Your task to perform on an android device: Toggle the flashlight Image 0: 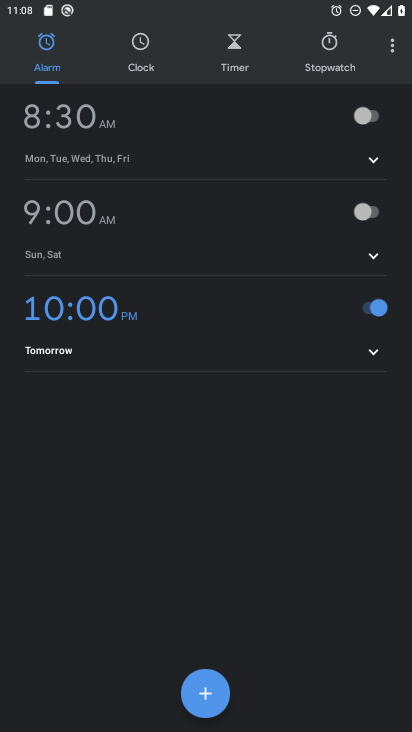
Step 0: drag from (199, 661) to (271, 256)
Your task to perform on an android device: Toggle the flashlight Image 1: 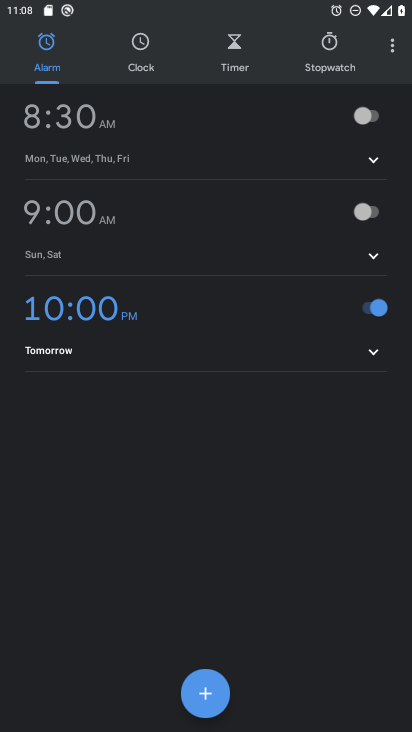
Step 1: task complete